Your task to perform on an android device: What is the news today? Image 0: 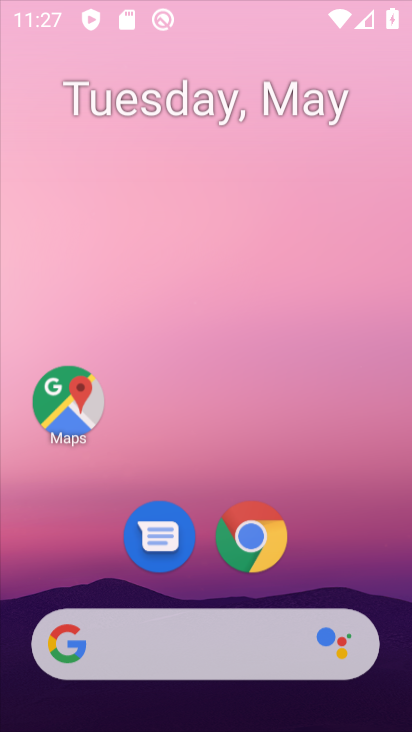
Step 0: press home button
Your task to perform on an android device: What is the news today? Image 1: 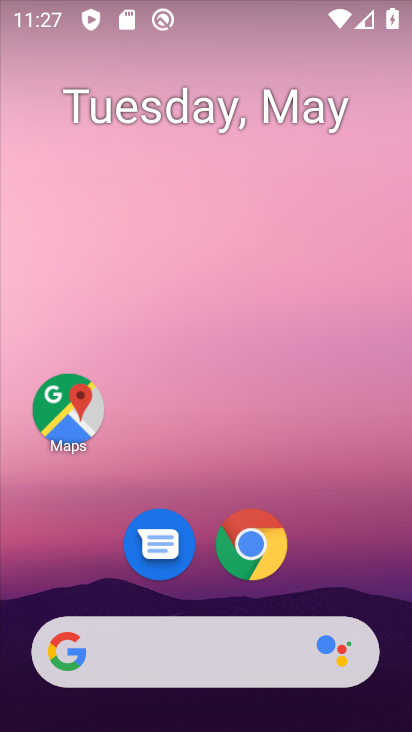
Step 1: drag from (380, 572) to (354, 133)
Your task to perform on an android device: What is the news today? Image 2: 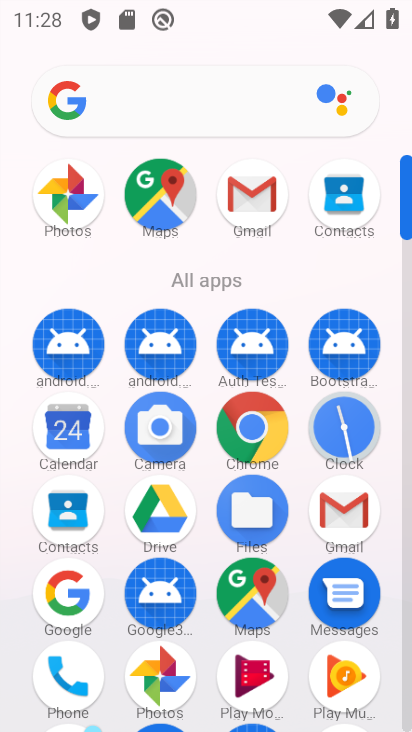
Step 2: click (229, 438)
Your task to perform on an android device: What is the news today? Image 3: 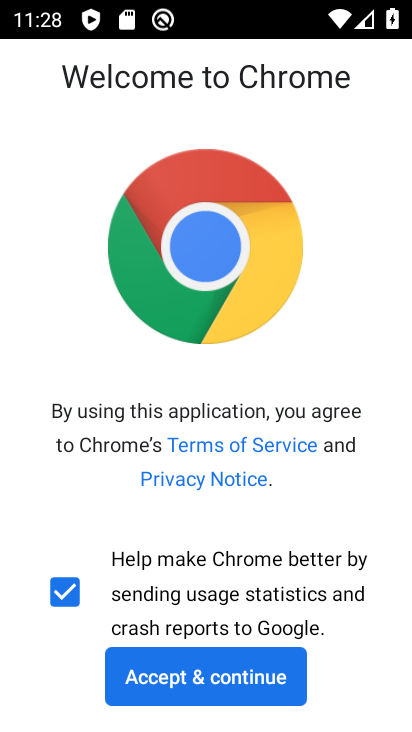
Step 3: click (235, 698)
Your task to perform on an android device: What is the news today? Image 4: 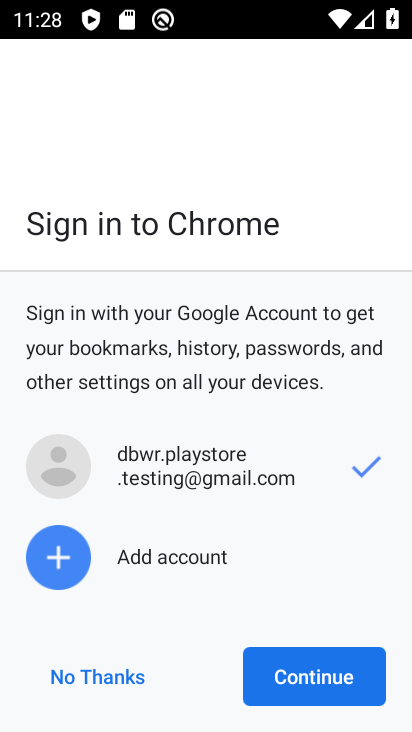
Step 4: click (292, 688)
Your task to perform on an android device: What is the news today? Image 5: 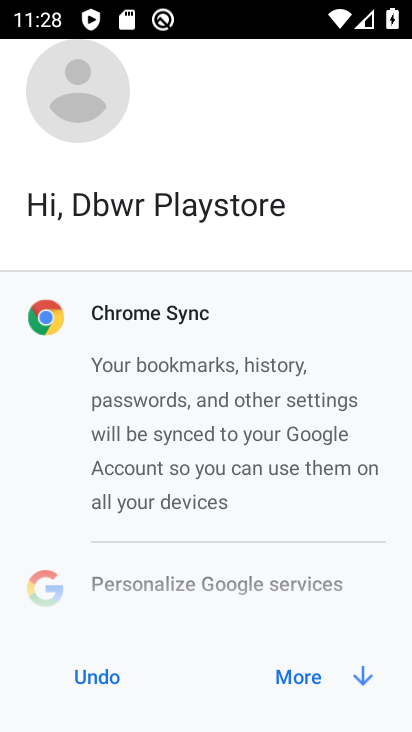
Step 5: click (289, 681)
Your task to perform on an android device: What is the news today? Image 6: 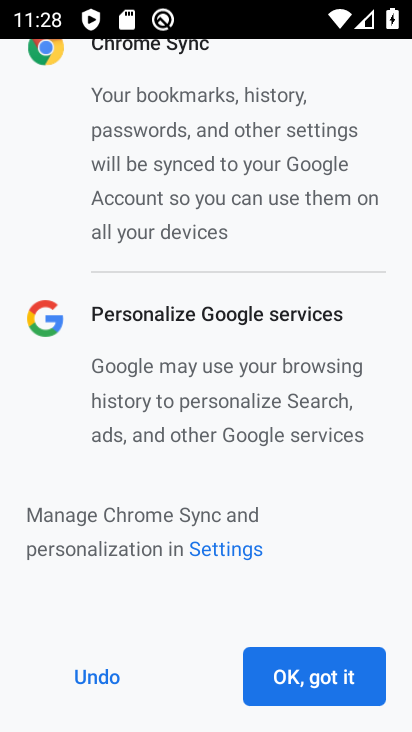
Step 6: click (289, 681)
Your task to perform on an android device: What is the news today? Image 7: 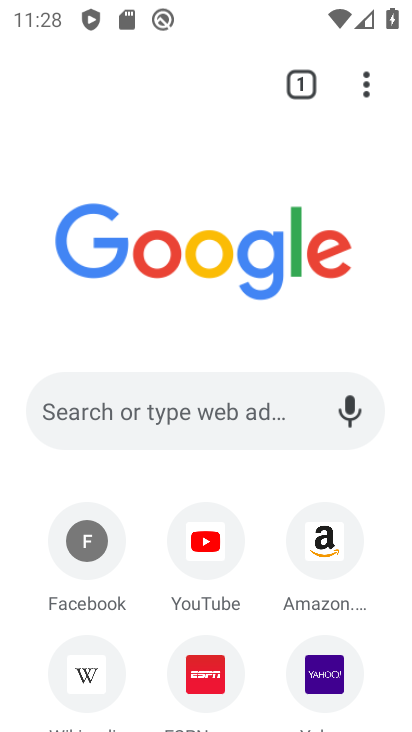
Step 7: click (205, 422)
Your task to perform on an android device: What is the news today? Image 8: 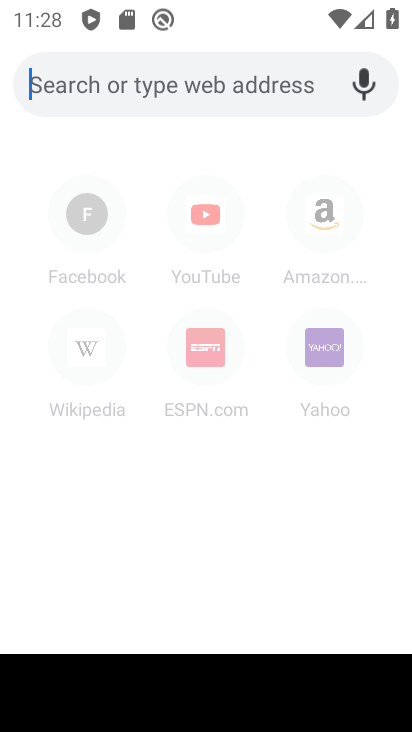
Step 8: type "what is the news today"
Your task to perform on an android device: What is the news today? Image 9: 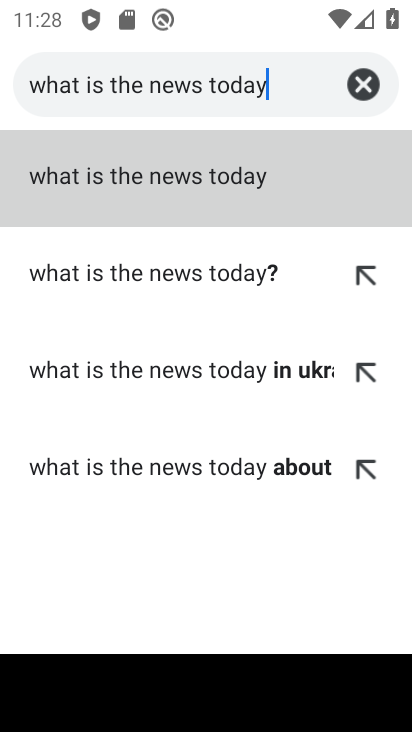
Step 9: click (183, 193)
Your task to perform on an android device: What is the news today? Image 10: 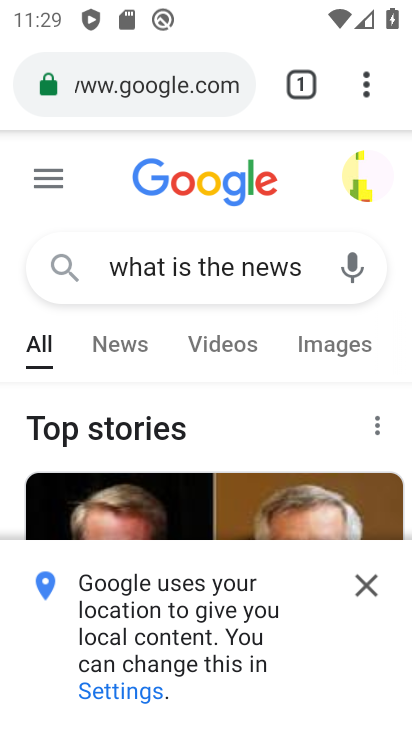
Step 10: click (360, 587)
Your task to perform on an android device: What is the news today? Image 11: 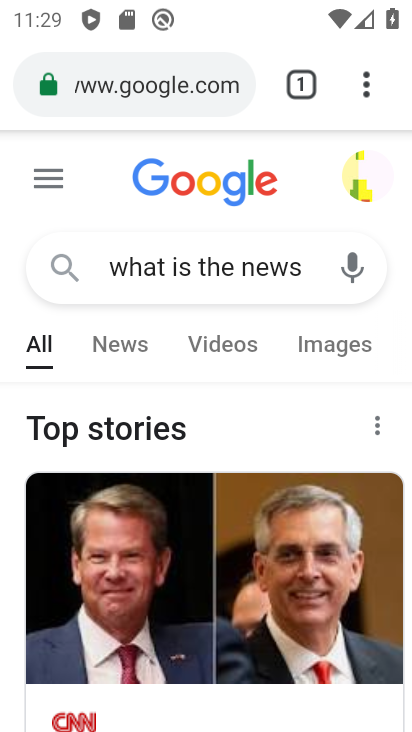
Step 11: task complete